Your task to perform on an android device: toggle improve location accuracy Image 0: 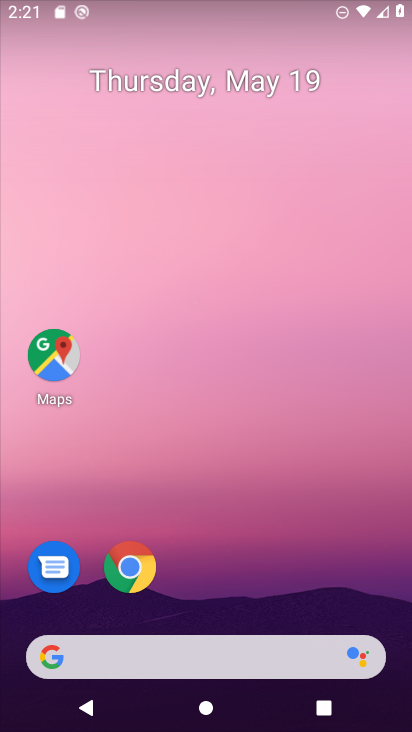
Step 0: drag from (242, 583) to (224, 69)
Your task to perform on an android device: toggle improve location accuracy Image 1: 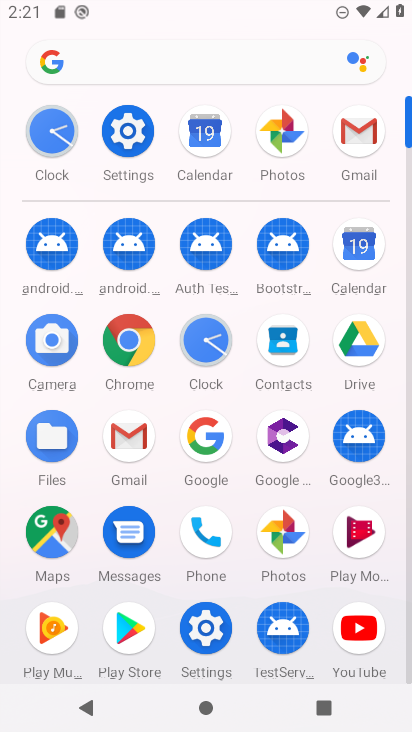
Step 1: click (126, 134)
Your task to perform on an android device: toggle improve location accuracy Image 2: 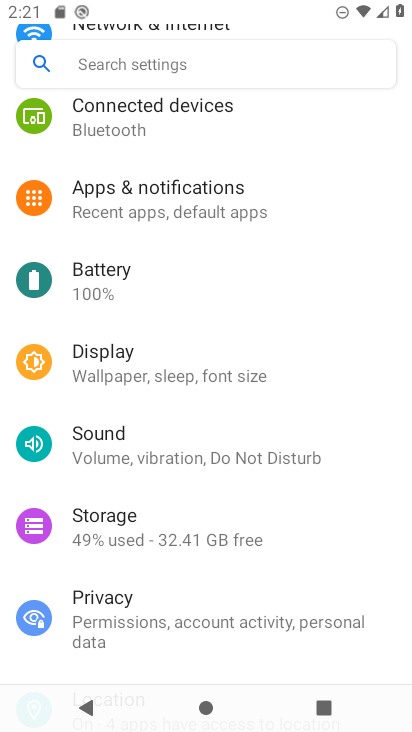
Step 2: drag from (196, 493) to (220, 176)
Your task to perform on an android device: toggle improve location accuracy Image 3: 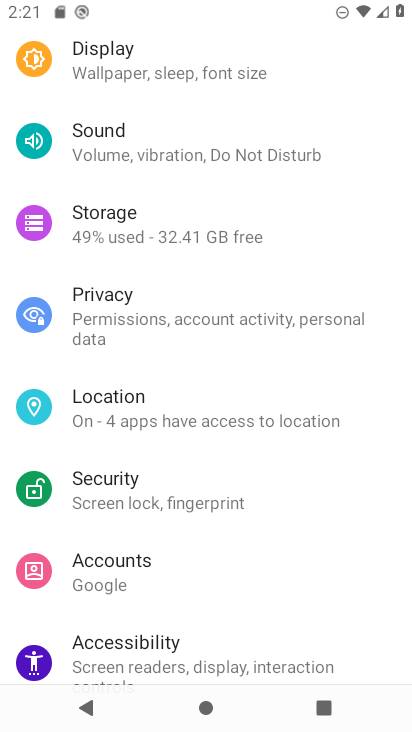
Step 3: click (199, 403)
Your task to perform on an android device: toggle improve location accuracy Image 4: 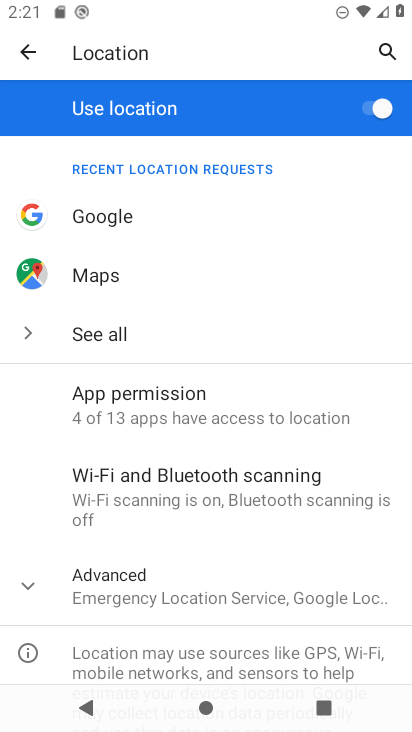
Step 4: click (28, 585)
Your task to perform on an android device: toggle improve location accuracy Image 5: 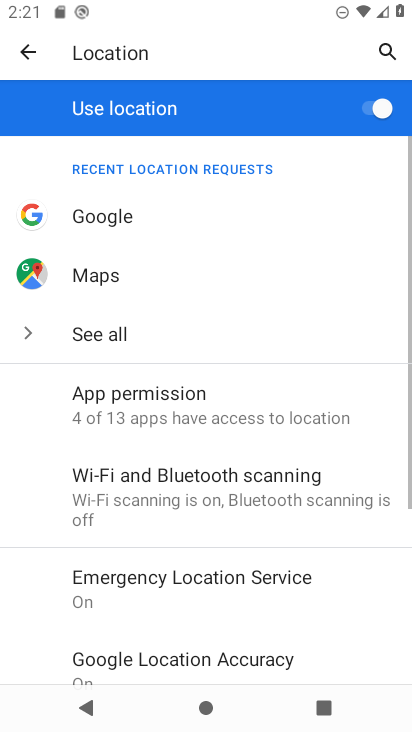
Step 5: drag from (230, 546) to (246, 303)
Your task to perform on an android device: toggle improve location accuracy Image 6: 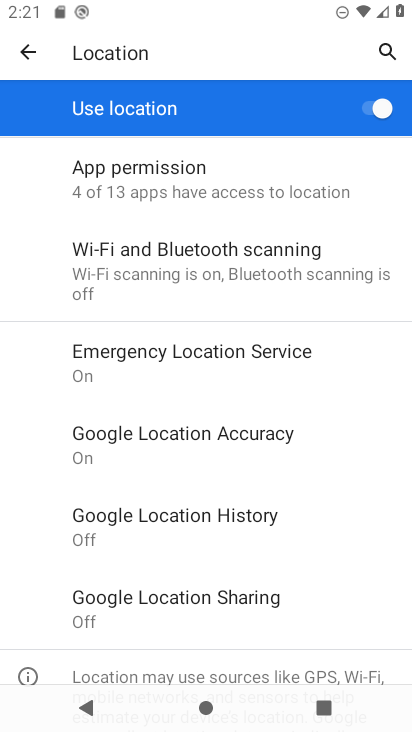
Step 6: click (232, 450)
Your task to perform on an android device: toggle improve location accuracy Image 7: 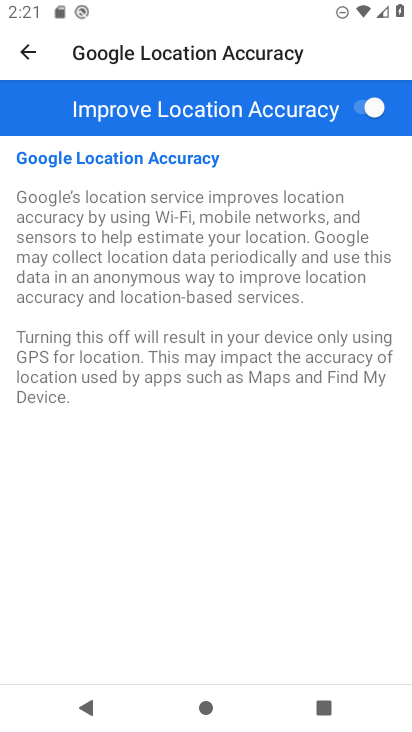
Step 7: click (360, 101)
Your task to perform on an android device: toggle improve location accuracy Image 8: 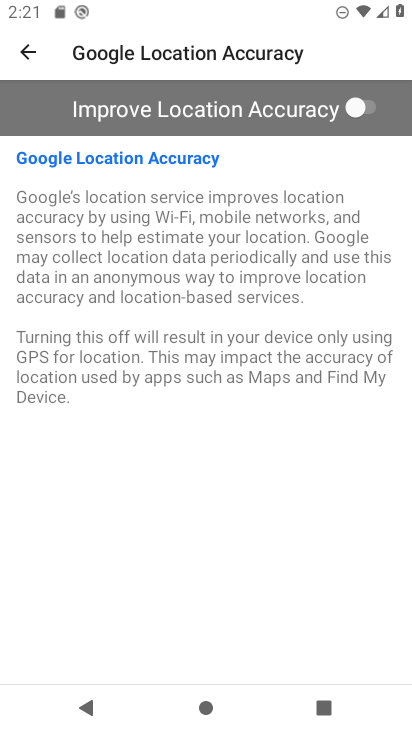
Step 8: task complete